Your task to perform on an android device: Go to Wikipedia Image 0: 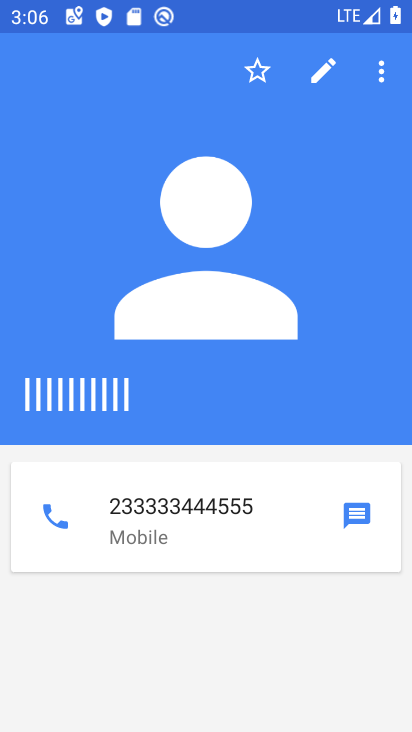
Step 0: press home button
Your task to perform on an android device: Go to Wikipedia Image 1: 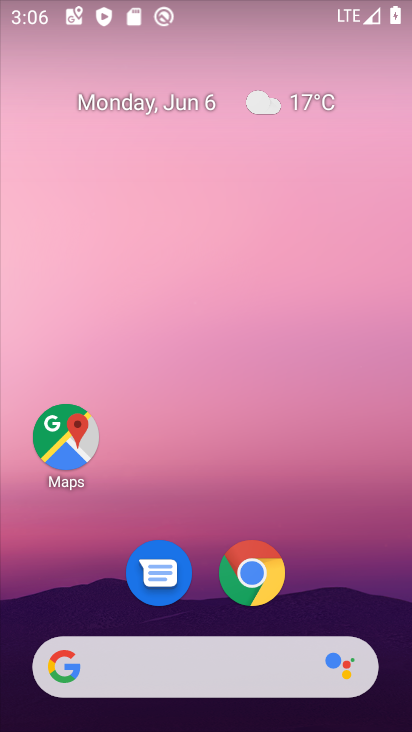
Step 1: drag from (363, 570) to (366, 170)
Your task to perform on an android device: Go to Wikipedia Image 2: 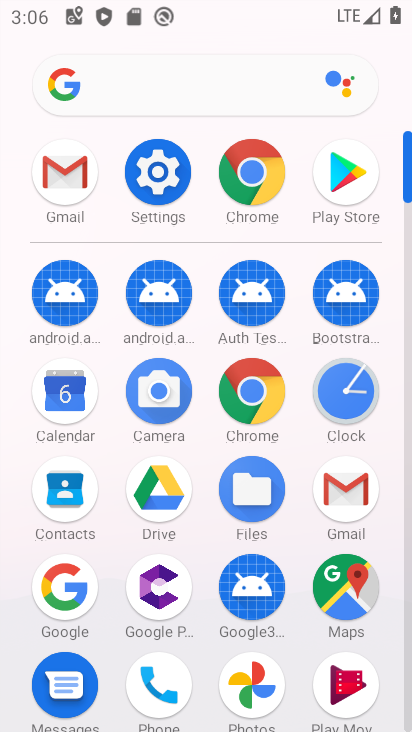
Step 2: click (251, 392)
Your task to perform on an android device: Go to Wikipedia Image 3: 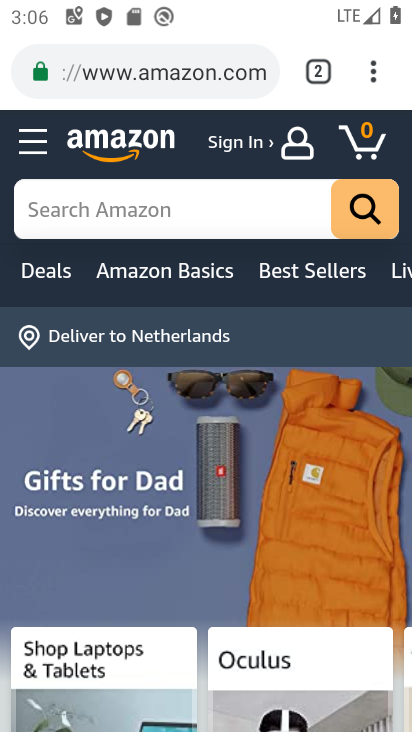
Step 3: click (248, 81)
Your task to perform on an android device: Go to Wikipedia Image 4: 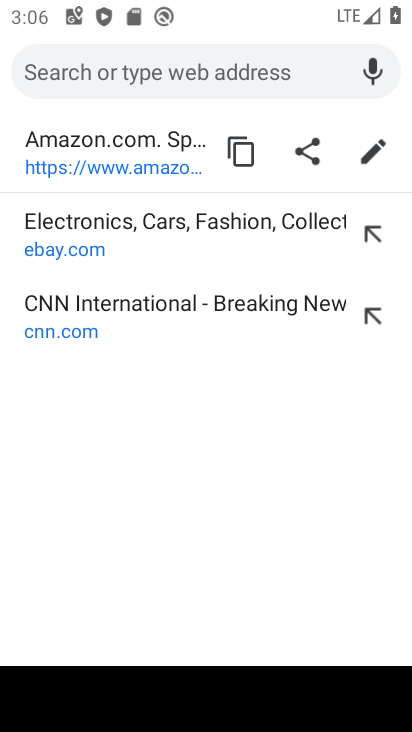
Step 4: type "wikipedia"
Your task to perform on an android device: Go to Wikipedia Image 5: 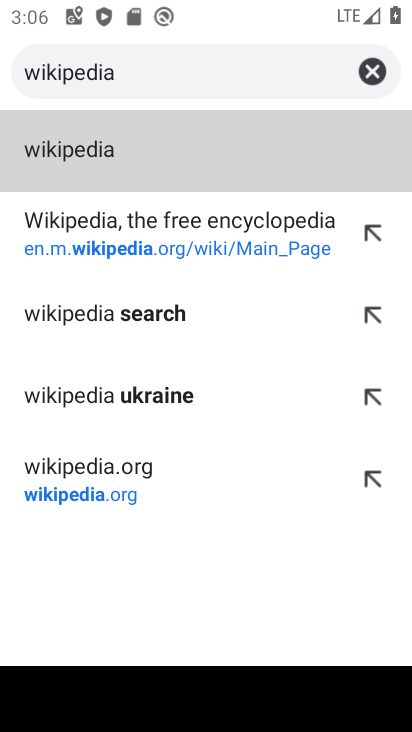
Step 5: click (173, 162)
Your task to perform on an android device: Go to Wikipedia Image 6: 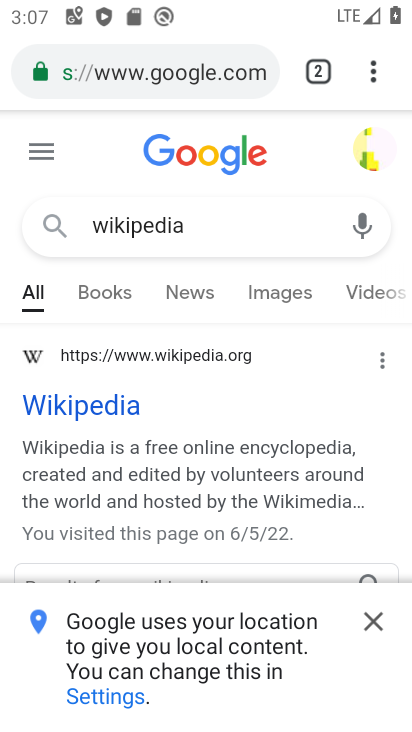
Step 6: task complete